Your task to perform on an android device: check storage Image 0: 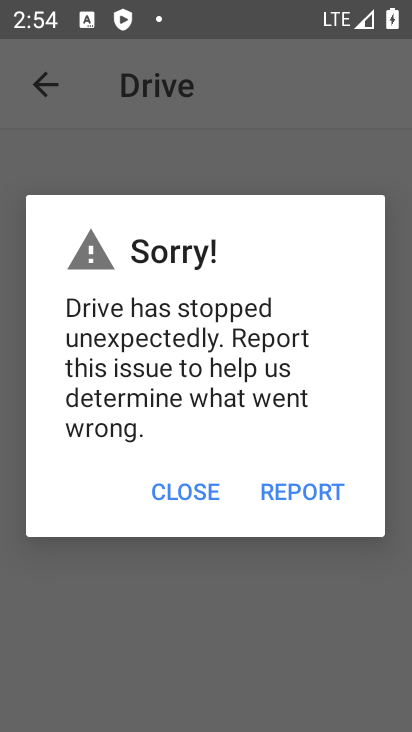
Step 0: press home button
Your task to perform on an android device: check storage Image 1: 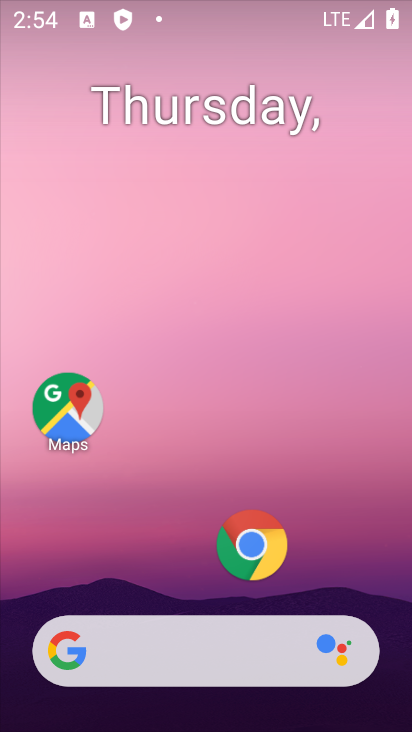
Step 1: drag from (288, 612) to (283, 4)
Your task to perform on an android device: check storage Image 2: 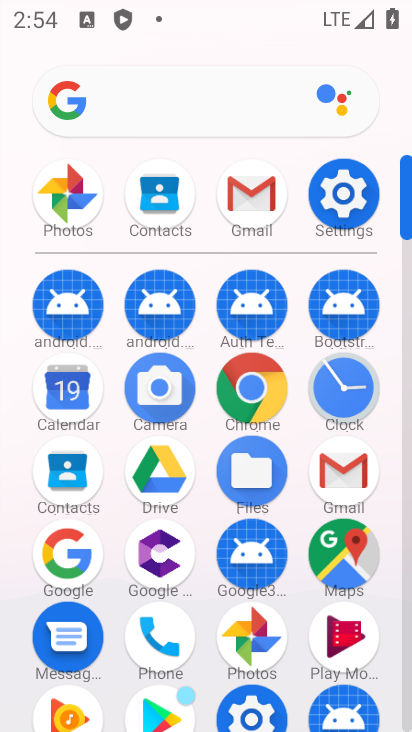
Step 2: click (344, 186)
Your task to perform on an android device: check storage Image 3: 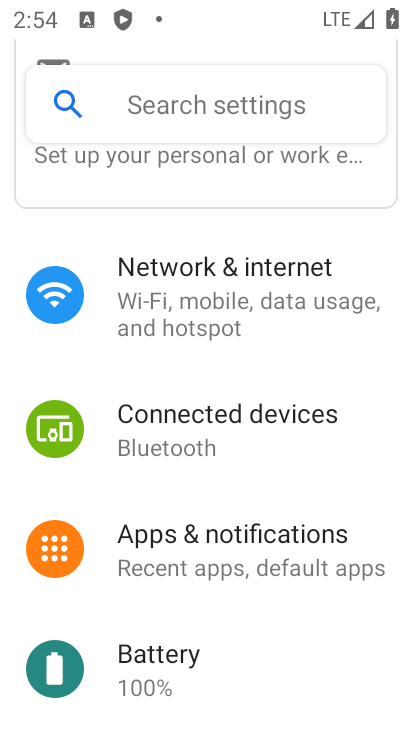
Step 3: drag from (251, 609) to (251, 142)
Your task to perform on an android device: check storage Image 4: 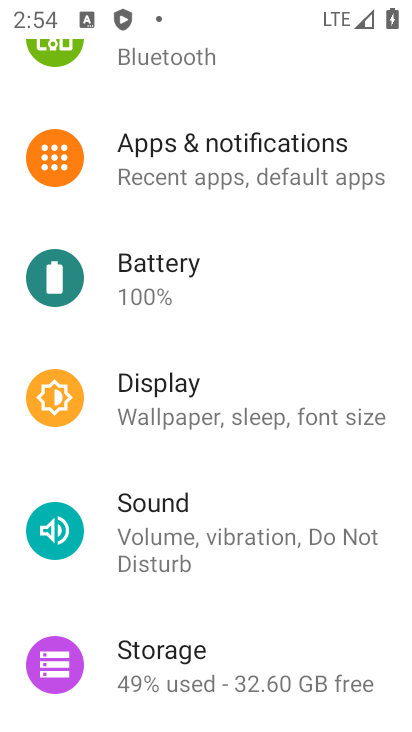
Step 4: click (186, 269)
Your task to perform on an android device: check storage Image 5: 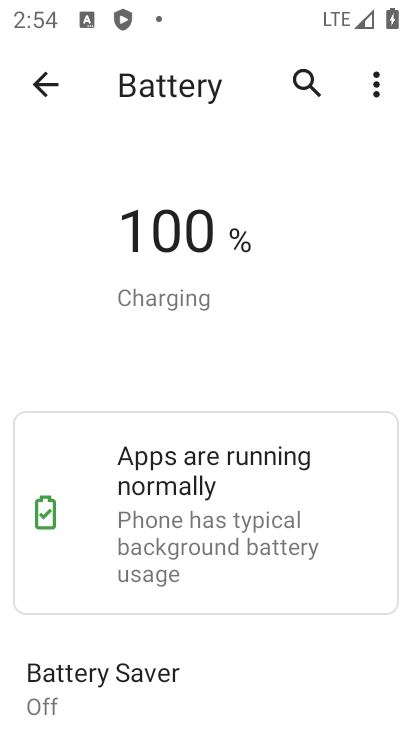
Step 5: press back button
Your task to perform on an android device: check storage Image 6: 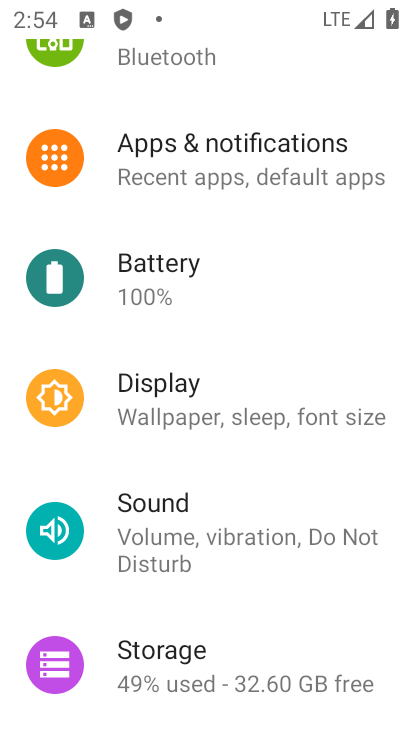
Step 6: click (250, 662)
Your task to perform on an android device: check storage Image 7: 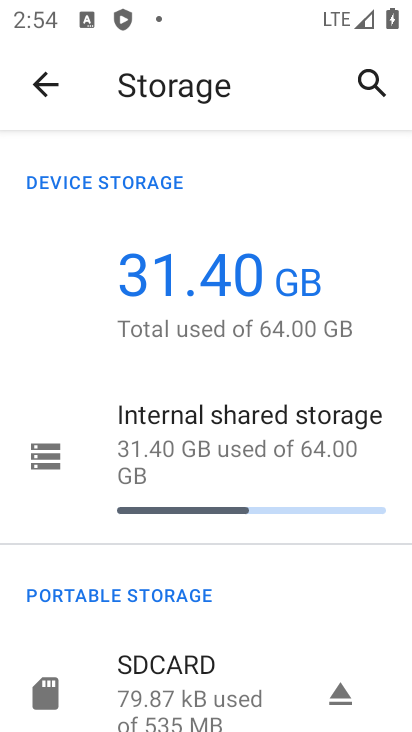
Step 7: press home button
Your task to perform on an android device: check storage Image 8: 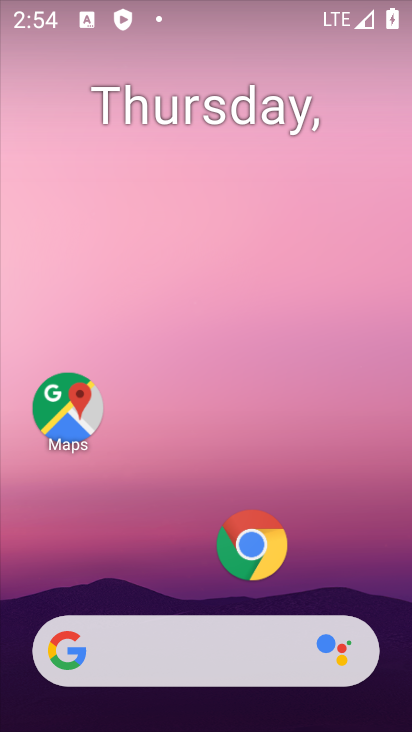
Step 8: drag from (262, 660) to (264, 64)
Your task to perform on an android device: check storage Image 9: 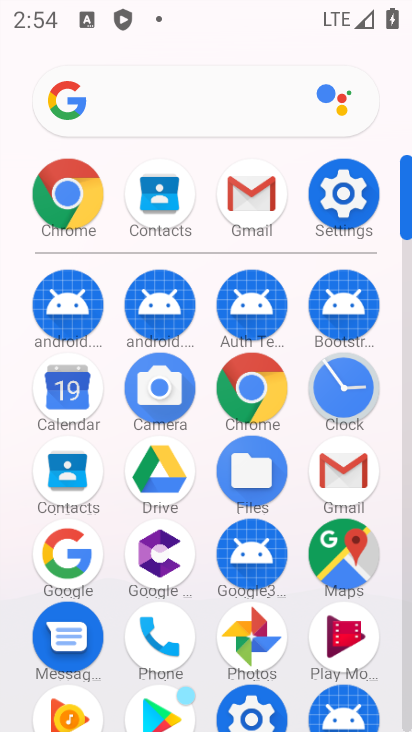
Step 9: click (362, 197)
Your task to perform on an android device: check storage Image 10: 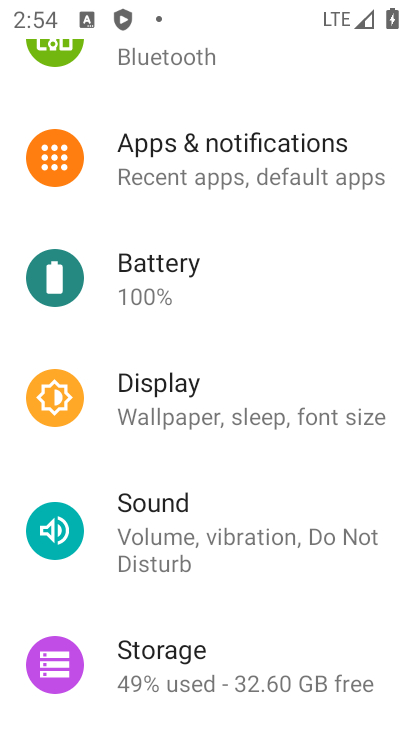
Step 10: click (216, 664)
Your task to perform on an android device: check storage Image 11: 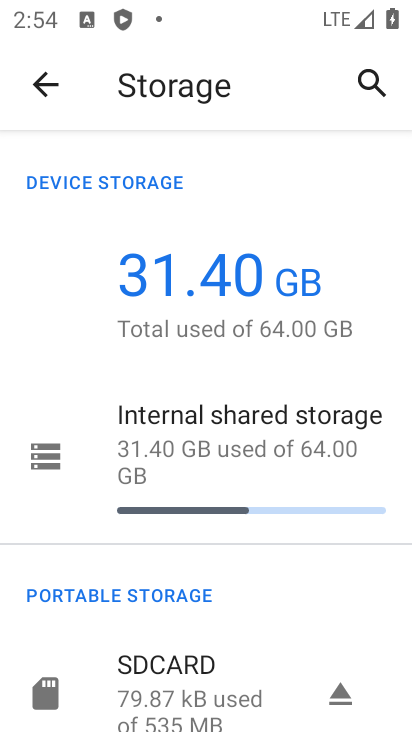
Step 11: task complete